Your task to perform on an android device: Go to calendar. Show me events next week Image 0: 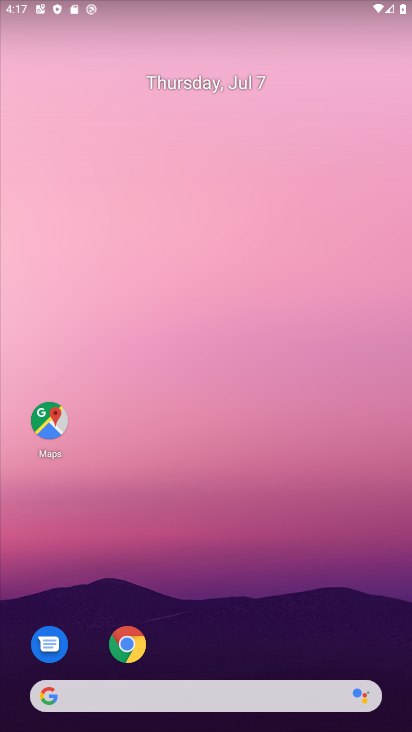
Step 0: drag from (238, 601) to (312, 88)
Your task to perform on an android device: Go to calendar. Show me events next week Image 1: 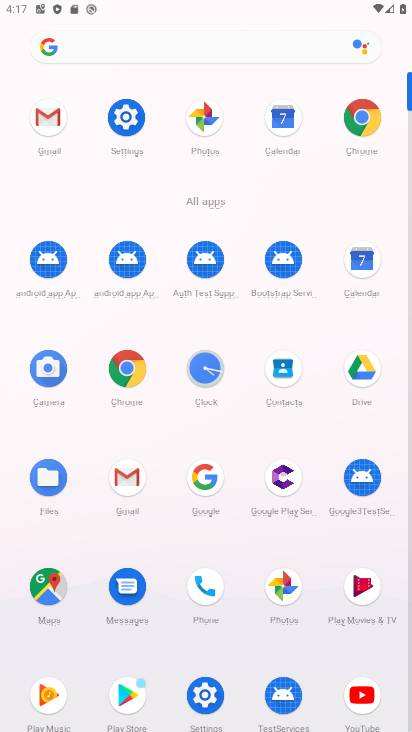
Step 1: click (354, 267)
Your task to perform on an android device: Go to calendar. Show me events next week Image 2: 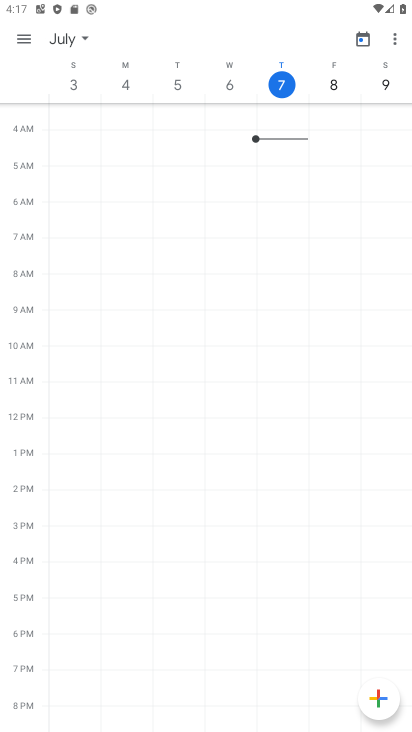
Step 2: click (24, 34)
Your task to perform on an android device: Go to calendar. Show me events next week Image 3: 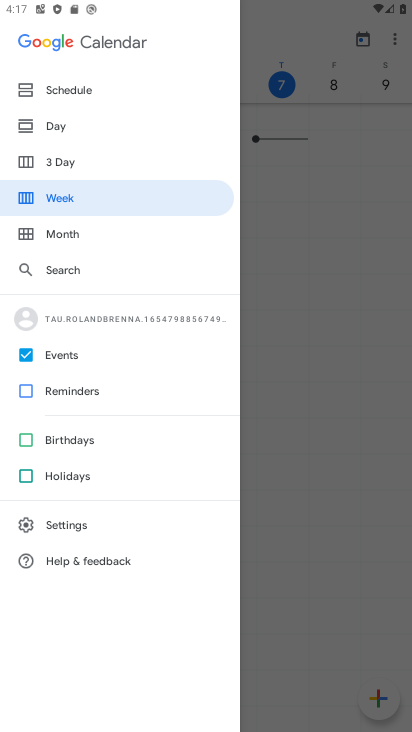
Step 3: click (71, 200)
Your task to perform on an android device: Go to calendar. Show me events next week Image 4: 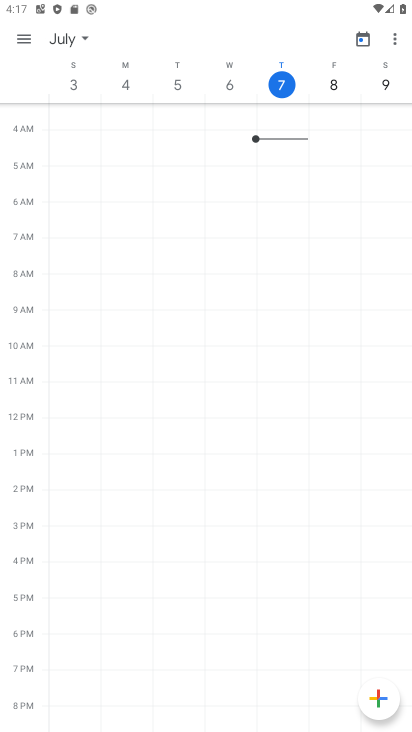
Step 4: task complete